Your task to perform on an android device: uninstall "Google Home" Image 0: 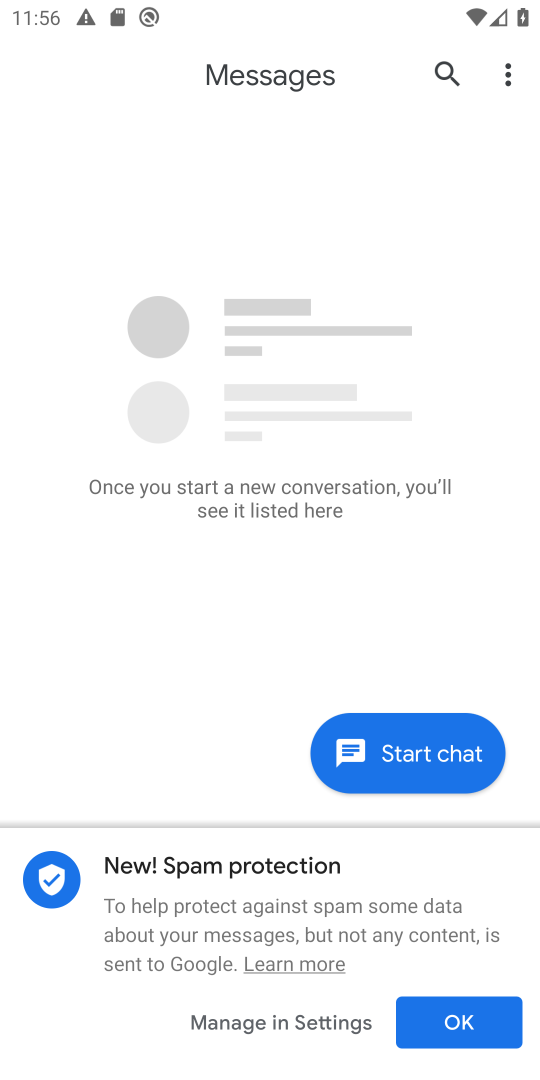
Step 0: press home button
Your task to perform on an android device: uninstall "Google Home" Image 1: 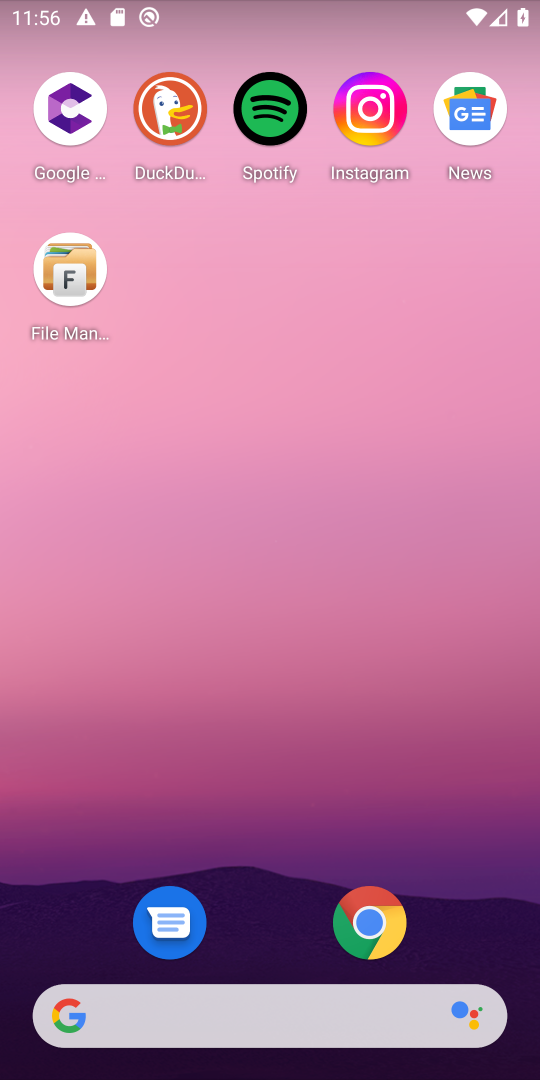
Step 1: drag from (499, 748) to (318, 89)
Your task to perform on an android device: uninstall "Google Home" Image 2: 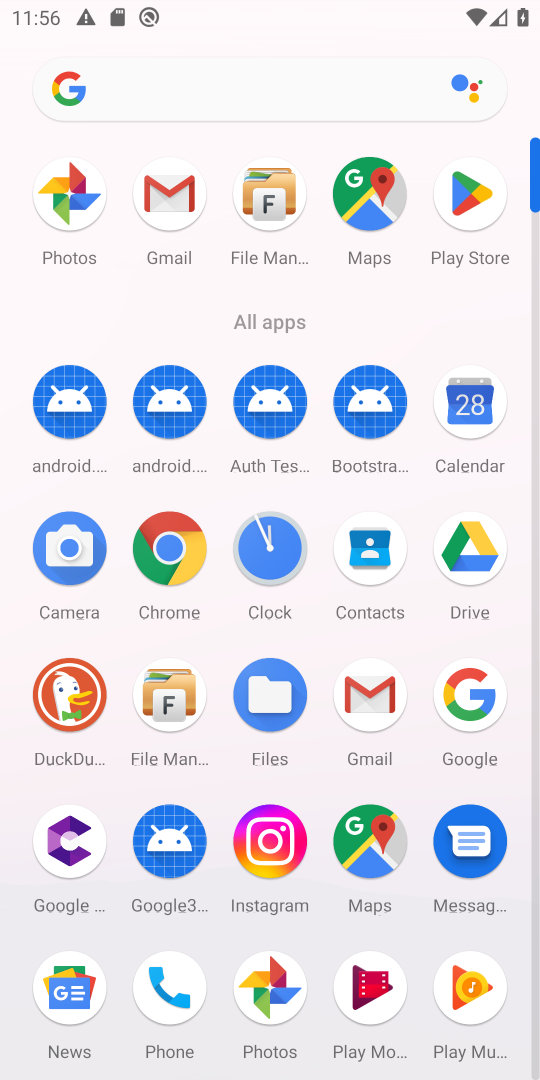
Step 2: click (464, 186)
Your task to perform on an android device: uninstall "Google Home" Image 3: 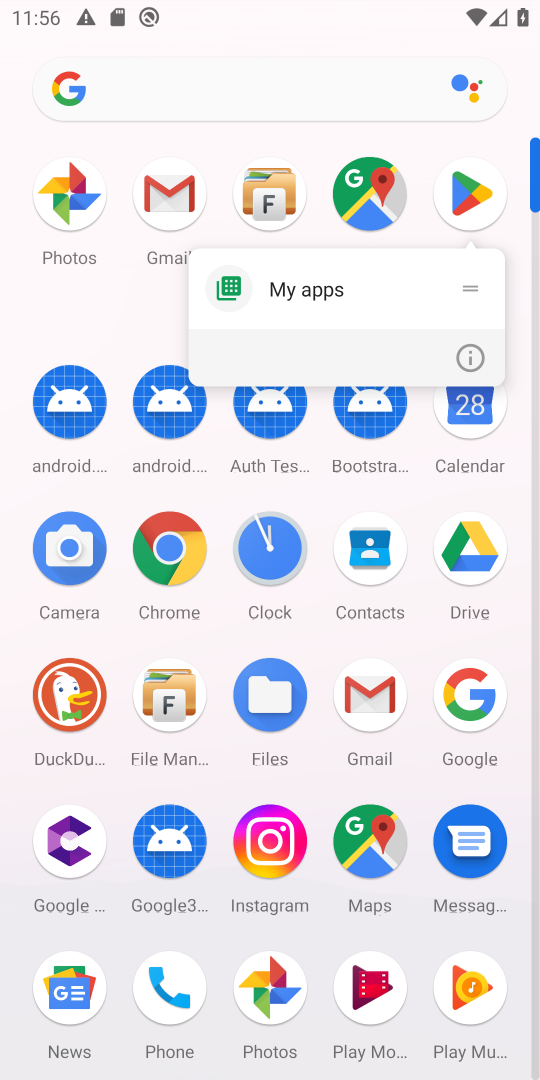
Step 3: click (462, 194)
Your task to perform on an android device: uninstall "Google Home" Image 4: 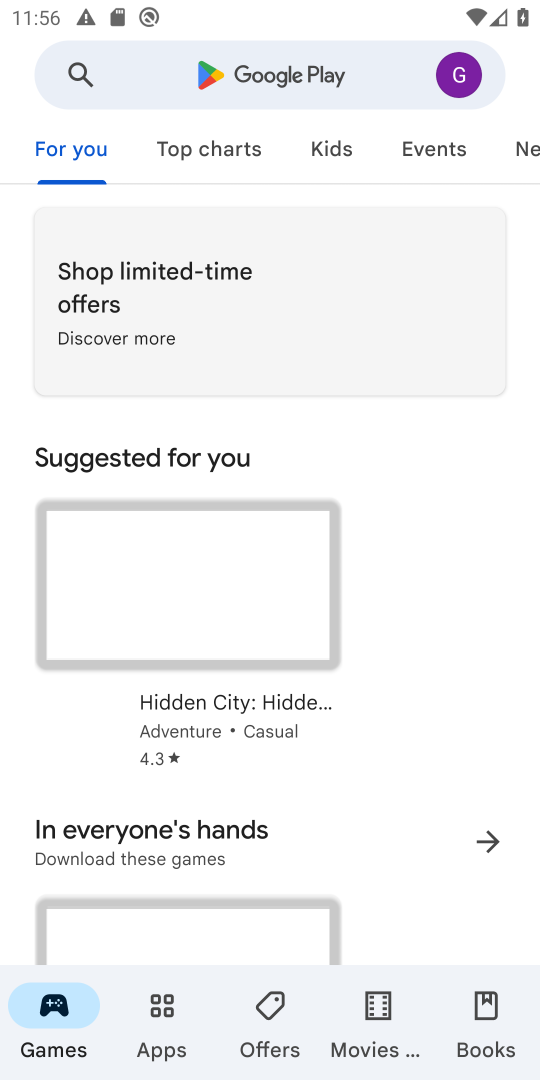
Step 4: click (292, 94)
Your task to perform on an android device: uninstall "Google Home" Image 5: 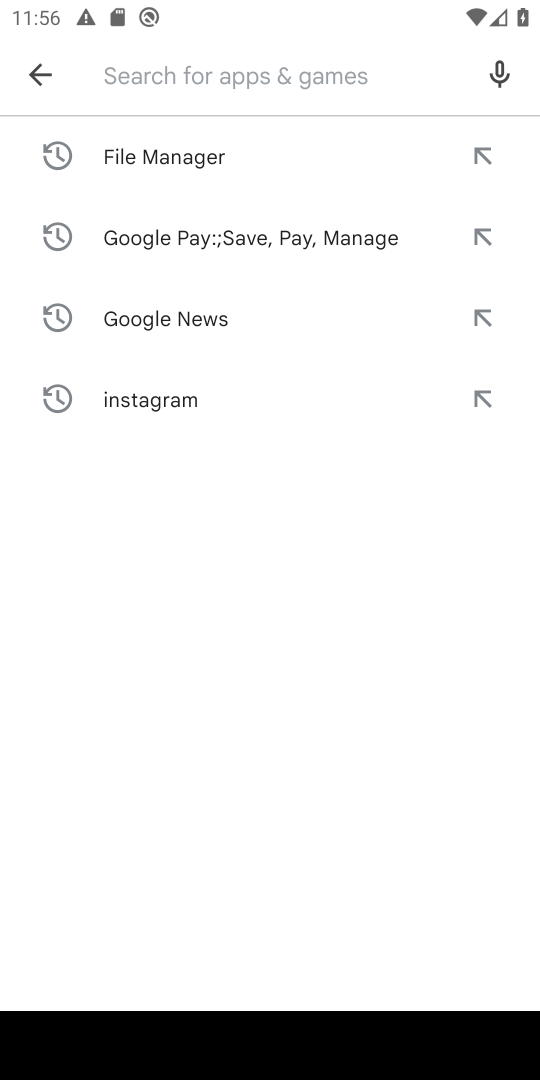
Step 5: type "Google Home"
Your task to perform on an android device: uninstall "Google Home" Image 6: 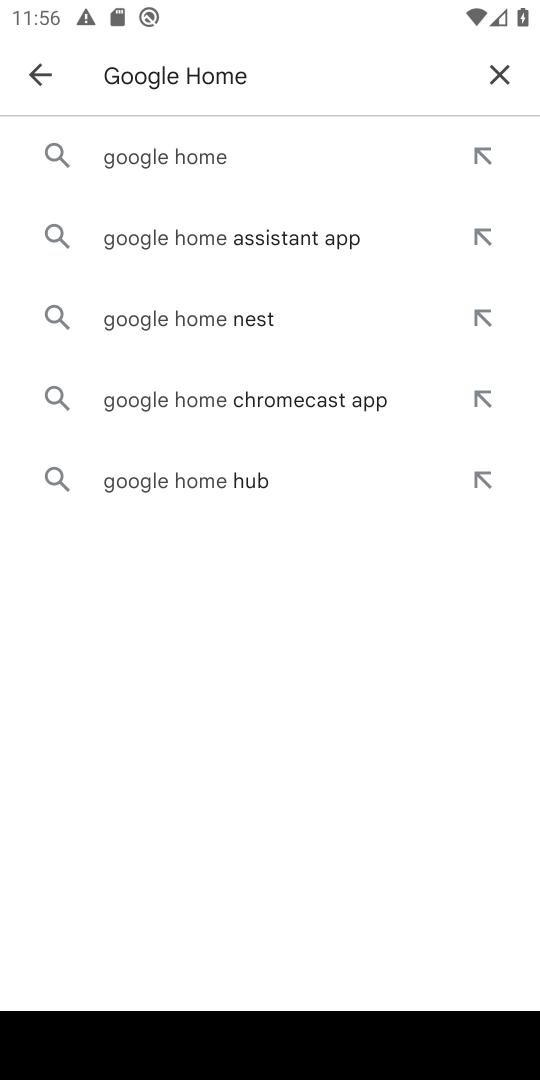
Step 6: press enter
Your task to perform on an android device: uninstall "Google Home" Image 7: 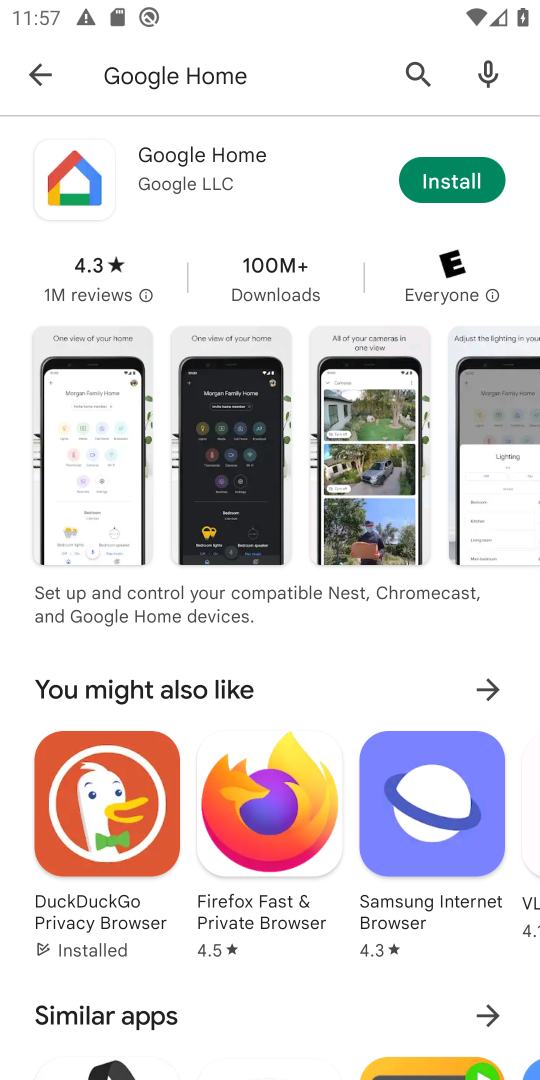
Step 7: task complete